Your task to perform on an android device: Open the calendar and show me this week's events? Image 0: 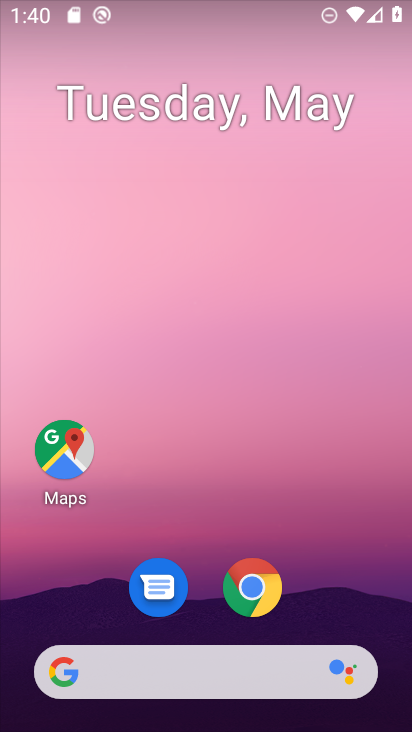
Step 0: click (225, 56)
Your task to perform on an android device: Open the calendar and show me this week's events? Image 1: 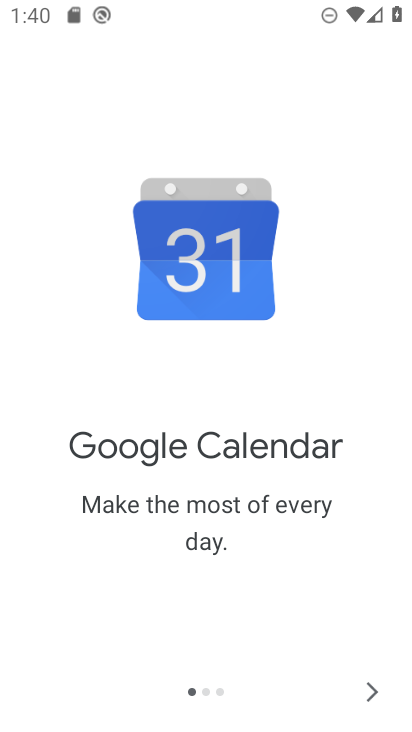
Step 1: click (391, 705)
Your task to perform on an android device: Open the calendar and show me this week's events? Image 2: 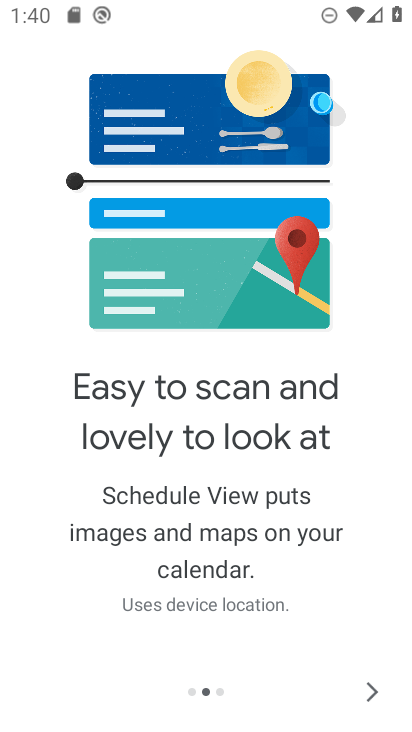
Step 2: click (377, 687)
Your task to perform on an android device: Open the calendar and show me this week's events? Image 3: 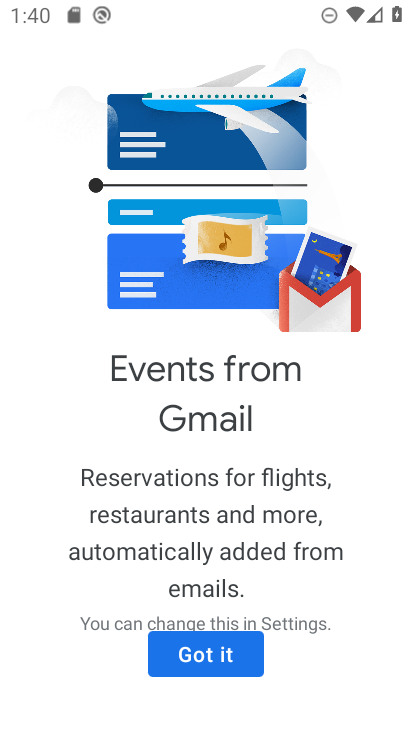
Step 3: click (223, 660)
Your task to perform on an android device: Open the calendar and show me this week's events? Image 4: 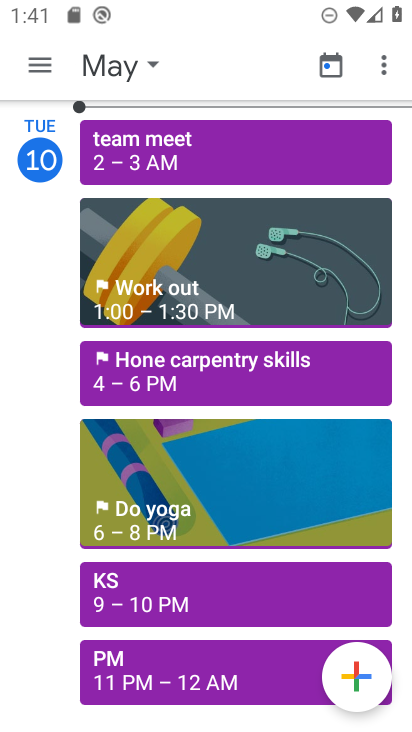
Step 4: task complete